Your task to perform on an android device: refresh tabs in the chrome app Image 0: 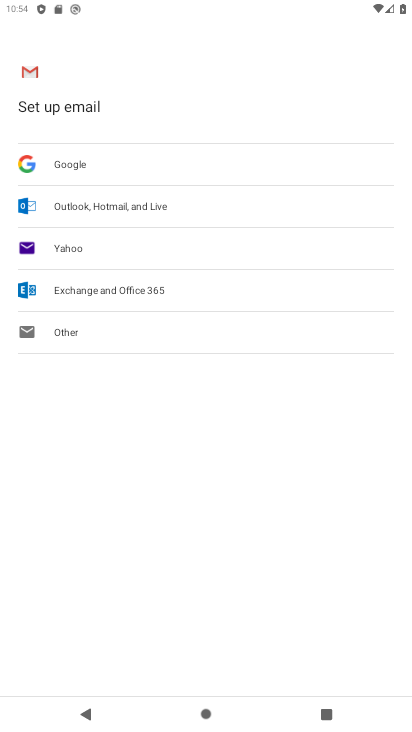
Step 0: press home button
Your task to perform on an android device: refresh tabs in the chrome app Image 1: 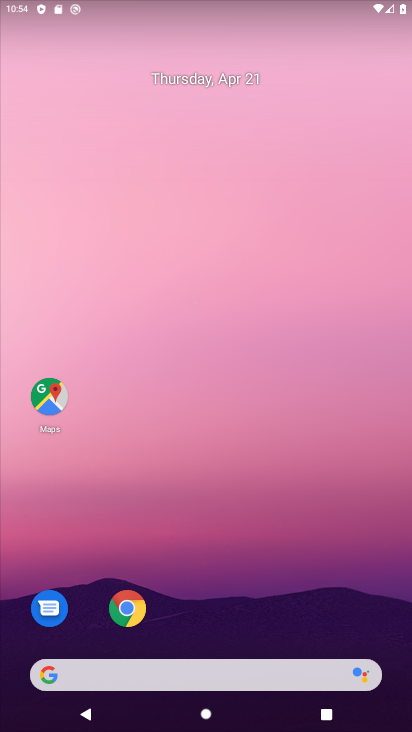
Step 1: click (128, 611)
Your task to perform on an android device: refresh tabs in the chrome app Image 2: 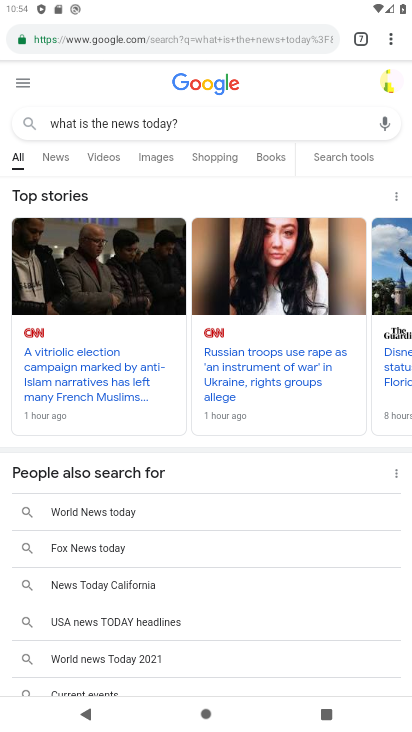
Step 2: click (389, 42)
Your task to perform on an android device: refresh tabs in the chrome app Image 3: 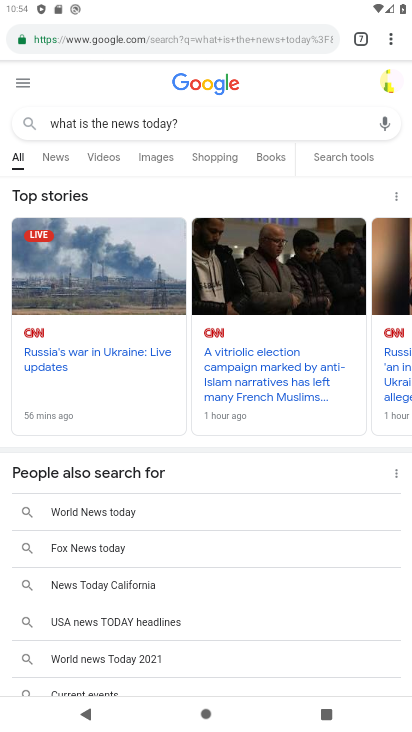
Step 3: click (392, 36)
Your task to perform on an android device: refresh tabs in the chrome app Image 4: 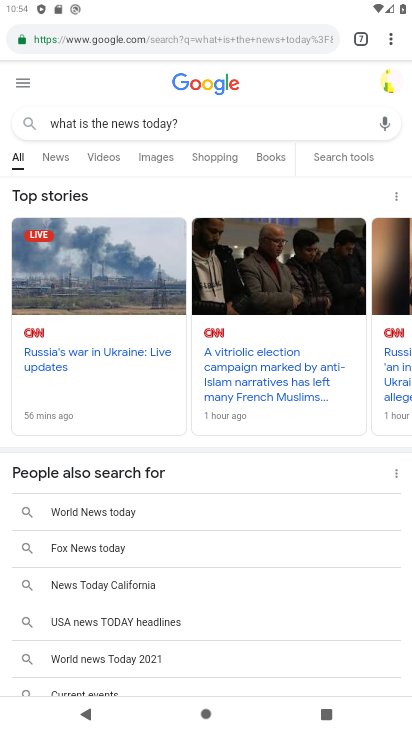
Step 4: click (388, 38)
Your task to perform on an android device: refresh tabs in the chrome app Image 5: 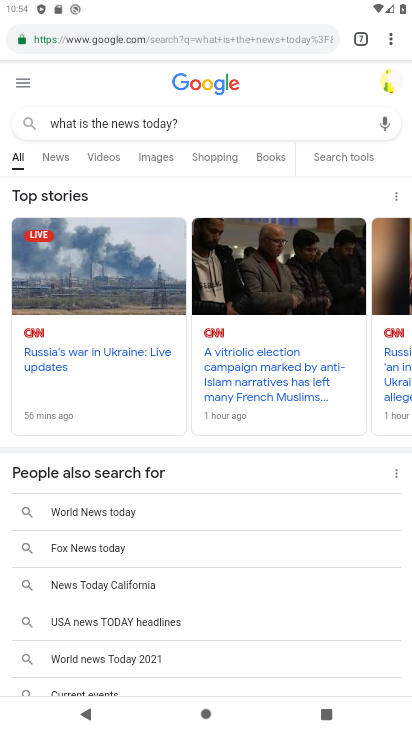
Step 5: task complete